Your task to perform on an android device: delete a single message in the gmail app Image 0: 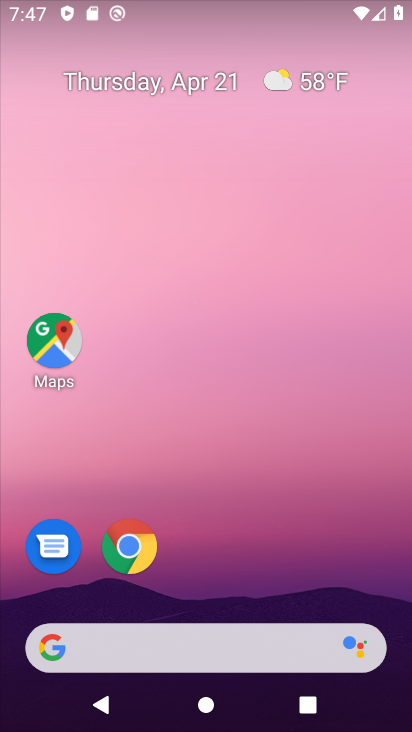
Step 0: drag from (330, 496) to (355, 51)
Your task to perform on an android device: delete a single message in the gmail app Image 1: 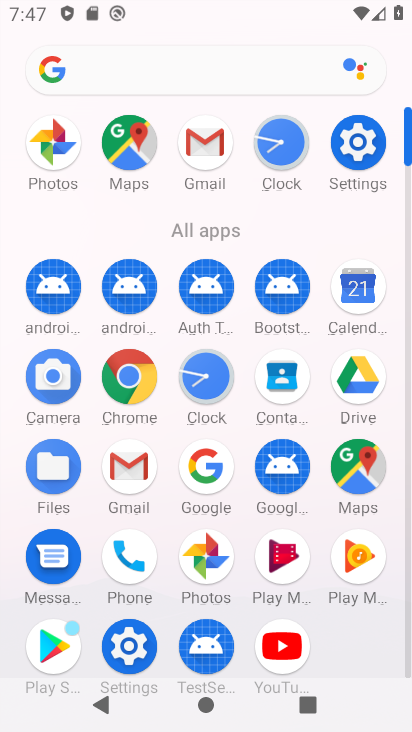
Step 1: click (209, 141)
Your task to perform on an android device: delete a single message in the gmail app Image 2: 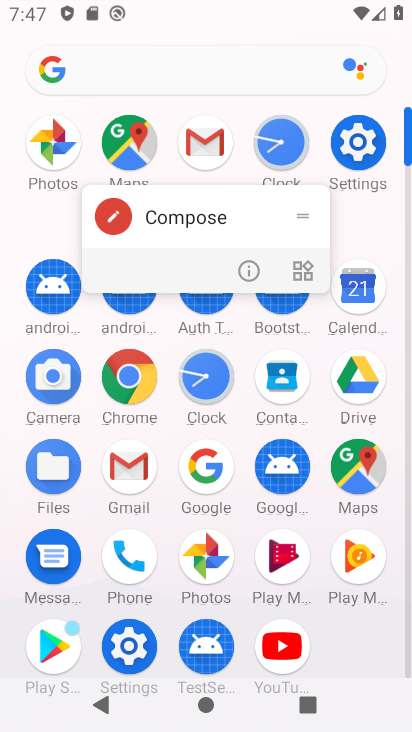
Step 2: click (209, 141)
Your task to perform on an android device: delete a single message in the gmail app Image 3: 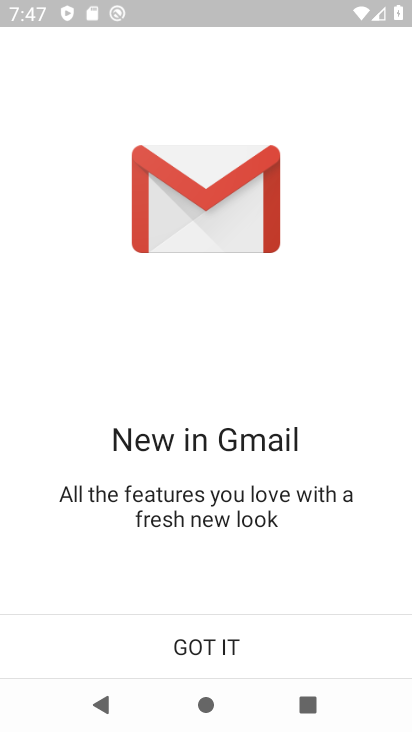
Step 3: click (197, 638)
Your task to perform on an android device: delete a single message in the gmail app Image 4: 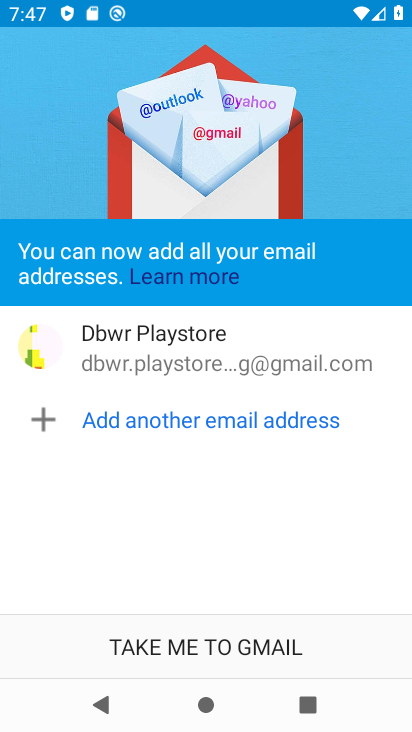
Step 4: click (197, 638)
Your task to perform on an android device: delete a single message in the gmail app Image 5: 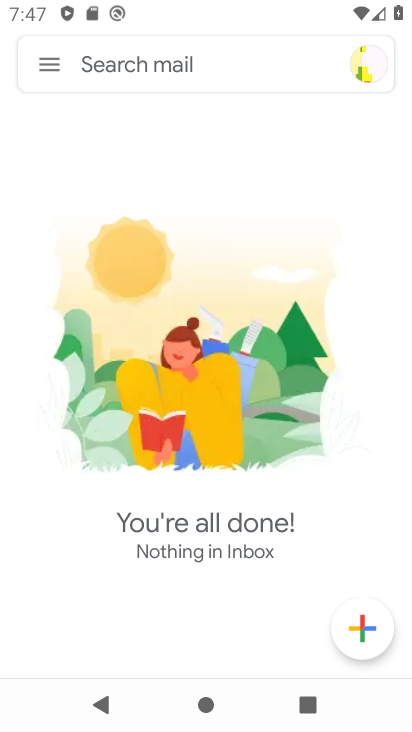
Step 5: task complete